Your task to perform on an android device: check storage Image 0: 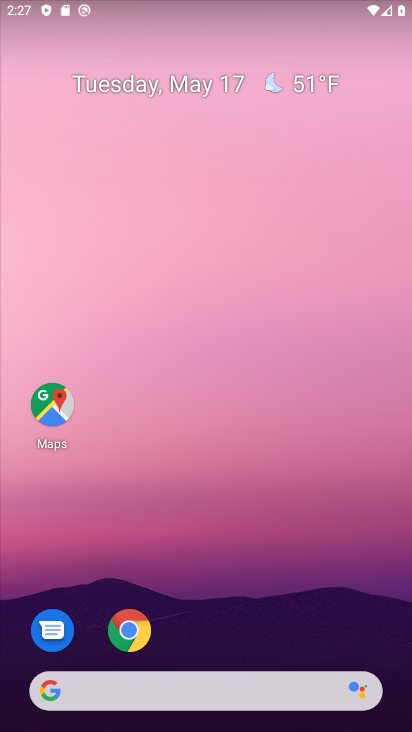
Step 0: drag from (232, 254) to (277, 35)
Your task to perform on an android device: check storage Image 1: 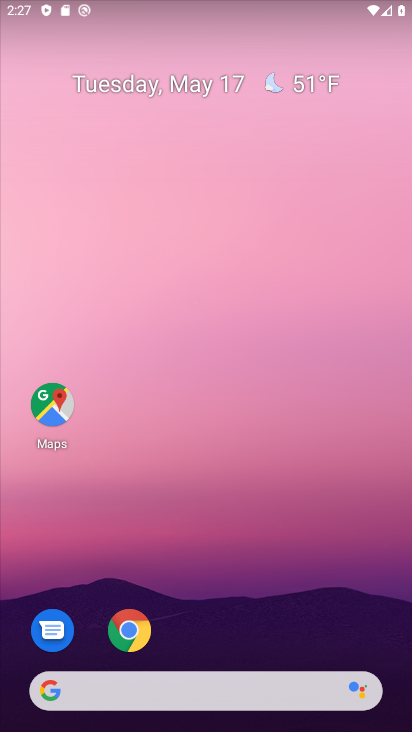
Step 1: drag from (276, 71) to (288, 33)
Your task to perform on an android device: check storage Image 2: 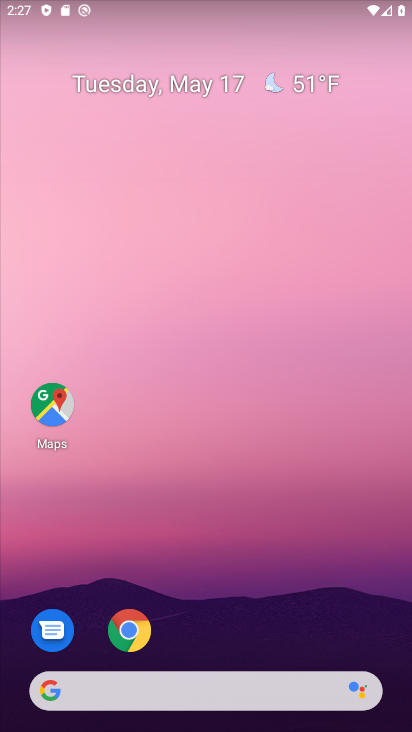
Step 2: drag from (226, 599) to (239, 22)
Your task to perform on an android device: check storage Image 3: 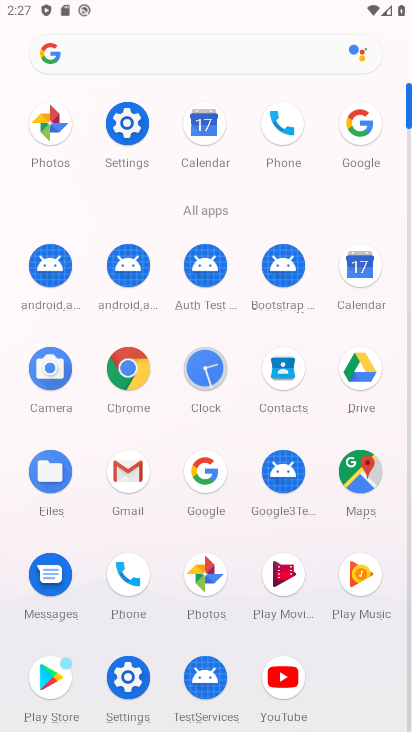
Step 3: click (129, 124)
Your task to perform on an android device: check storage Image 4: 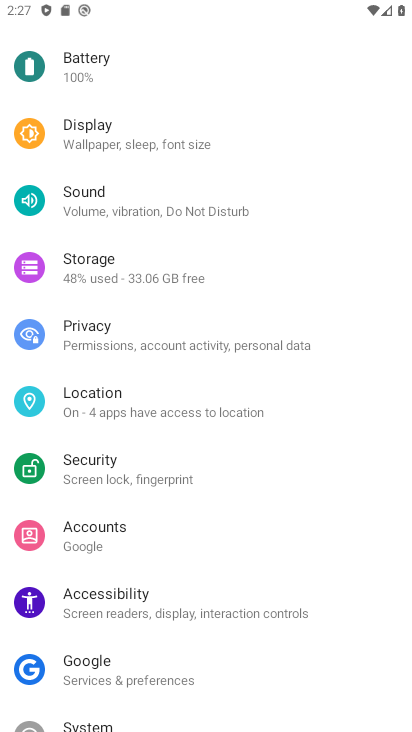
Step 4: click (116, 269)
Your task to perform on an android device: check storage Image 5: 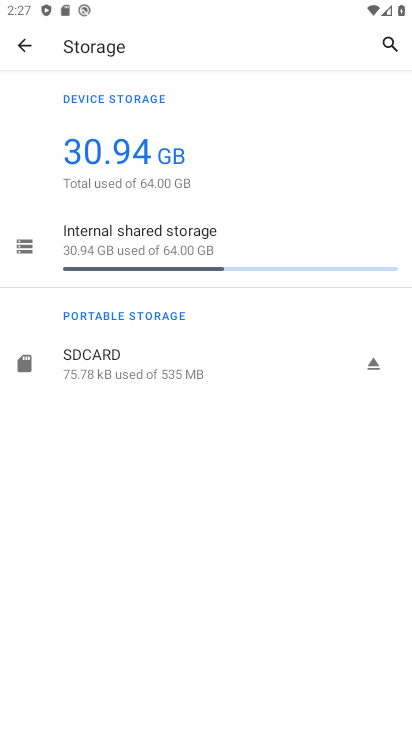
Step 5: task complete